Your task to perform on an android device: find which apps use the phone's location Image 0: 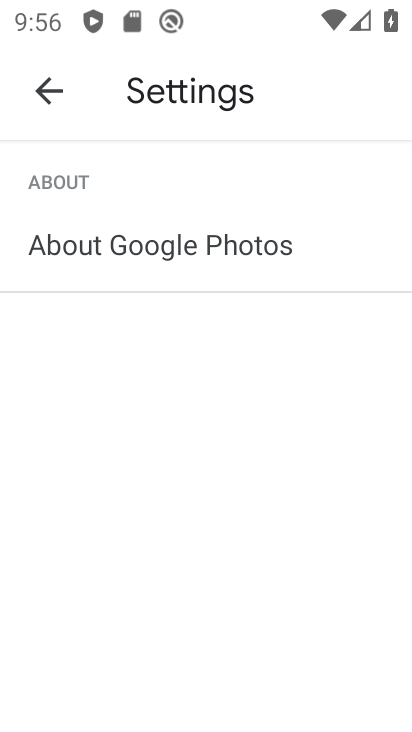
Step 0: press home button
Your task to perform on an android device: find which apps use the phone's location Image 1: 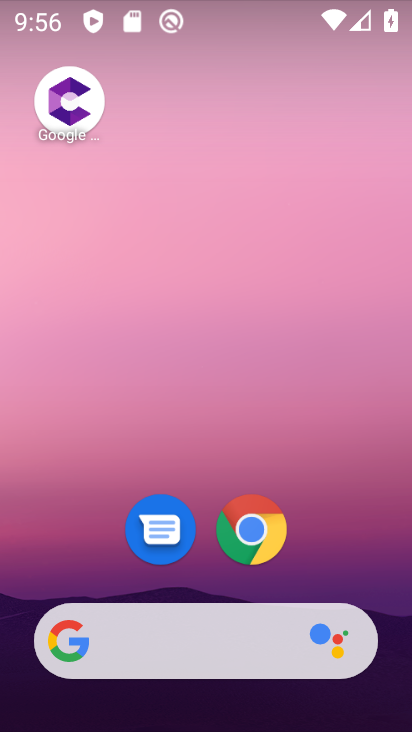
Step 1: drag from (23, 547) to (188, 178)
Your task to perform on an android device: find which apps use the phone's location Image 2: 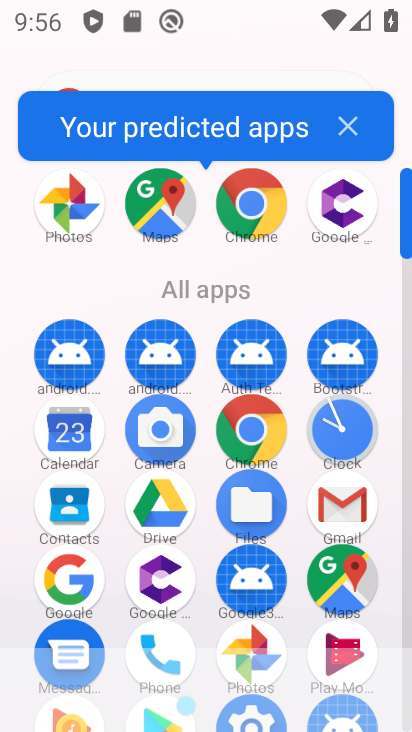
Step 2: drag from (44, 554) to (265, 243)
Your task to perform on an android device: find which apps use the phone's location Image 3: 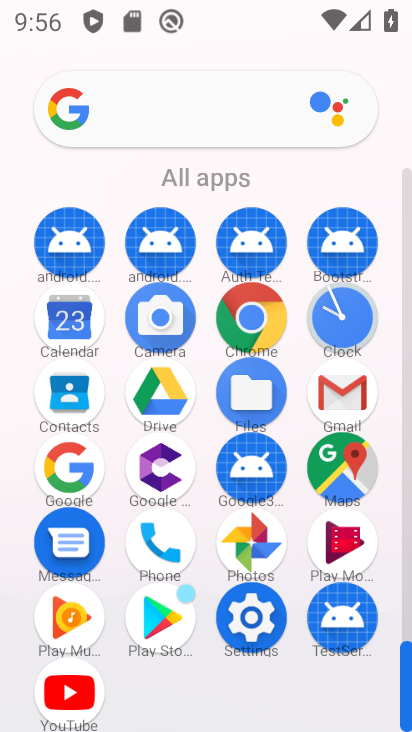
Step 3: click (237, 619)
Your task to perform on an android device: find which apps use the phone's location Image 4: 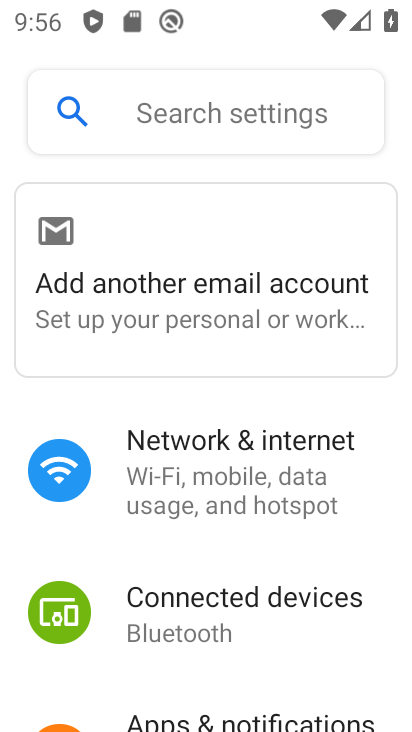
Step 4: drag from (85, 627) to (278, 243)
Your task to perform on an android device: find which apps use the phone's location Image 5: 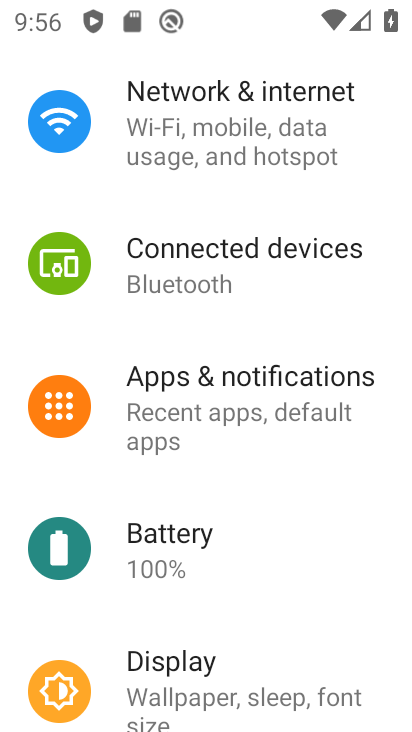
Step 5: drag from (160, 645) to (319, 285)
Your task to perform on an android device: find which apps use the phone's location Image 6: 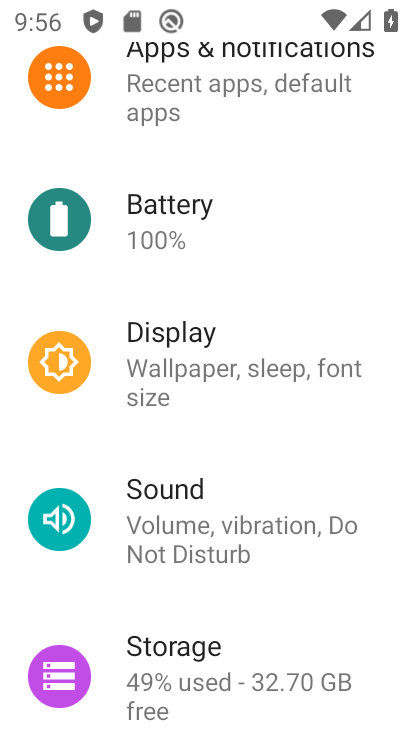
Step 6: drag from (179, 250) to (197, 594)
Your task to perform on an android device: find which apps use the phone's location Image 7: 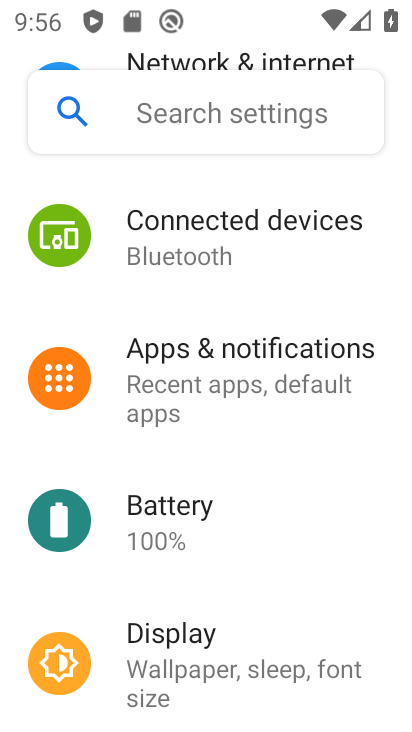
Step 7: drag from (137, 627) to (282, 228)
Your task to perform on an android device: find which apps use the phone's location Image 8: 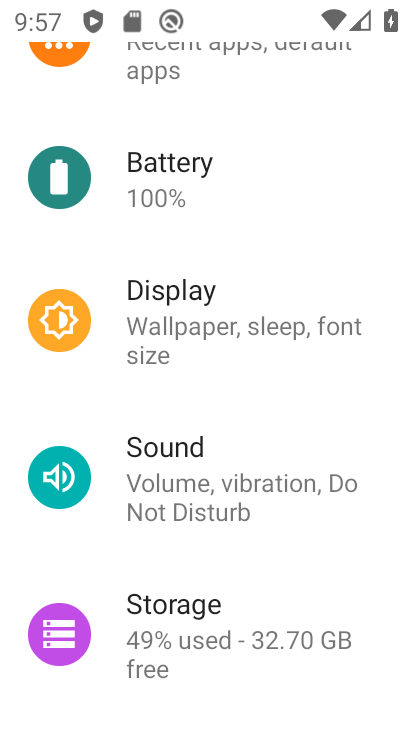
Step 8: drag from (50, 638) to (225, 249)
Your task to perform on an android device: find which apps use the phone's location Image 9: 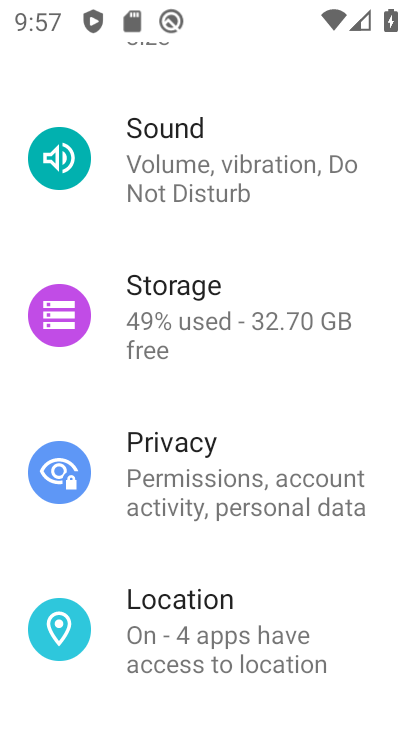
Step 9: click (186, 629)
Your task to perform on an android device: find which apps use the phone's location Image 10: 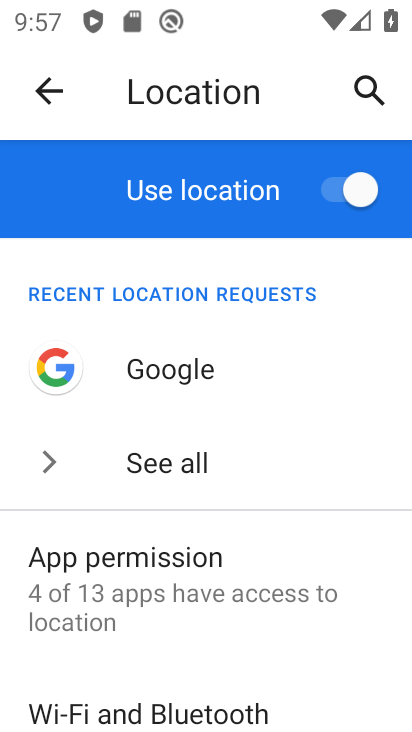
Step 10: drag from (9, 611) to (299, 217)
Your task to perform on an android device: find which apps use the phone's location Image 11: 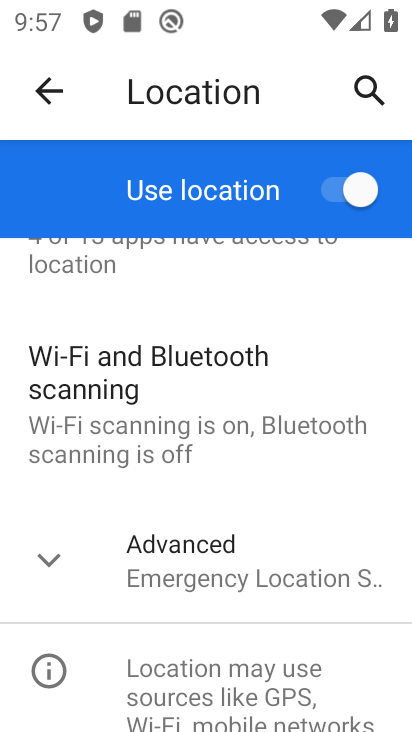
Step 11: drag from (122, 266) to (117, 666)
Your task to perform on an android device: find which apps use the phone's location Image 12: 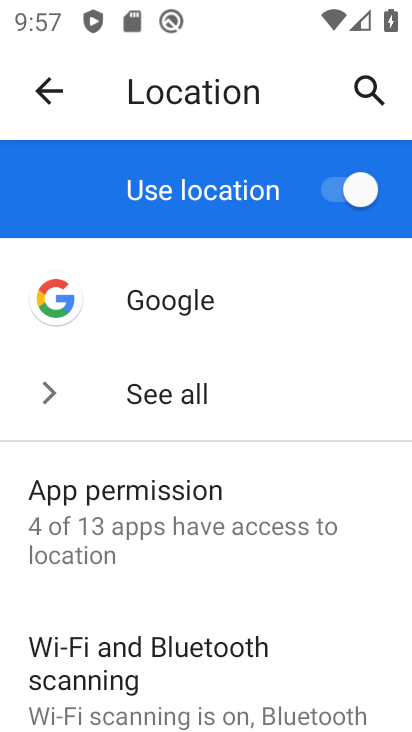
Step 12: click (138, 504)
Your task to perform on an android device: find which apps use the phone's location Image 13: 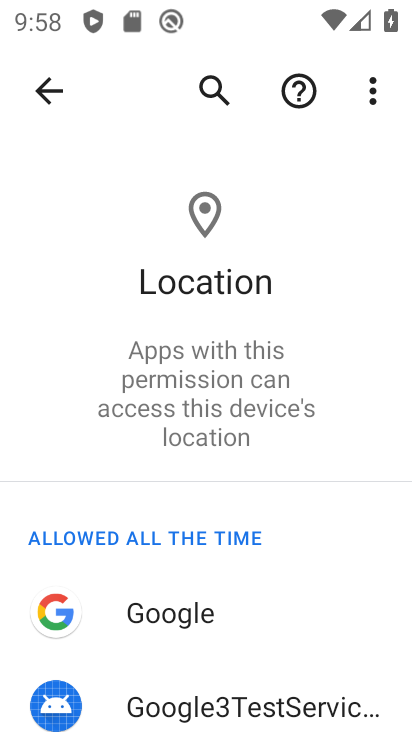
Step 13: task complete